Your task to perform on an android device: Open calendar and show me the first week of next month Image 0: 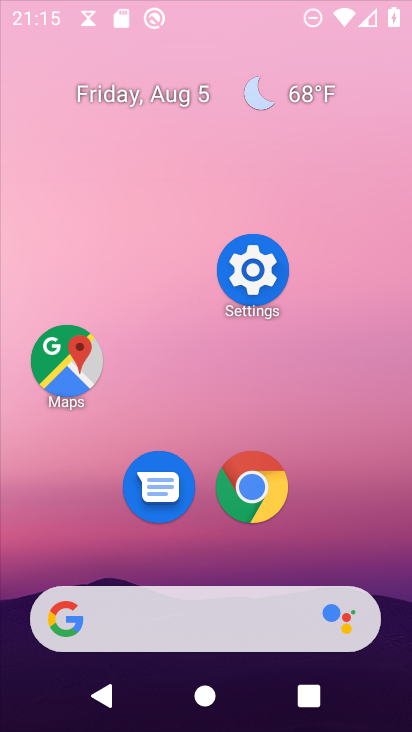
Step 0: press home button
Your task to perform on an android device: Open calendar and show me the first week of next month Image 1: 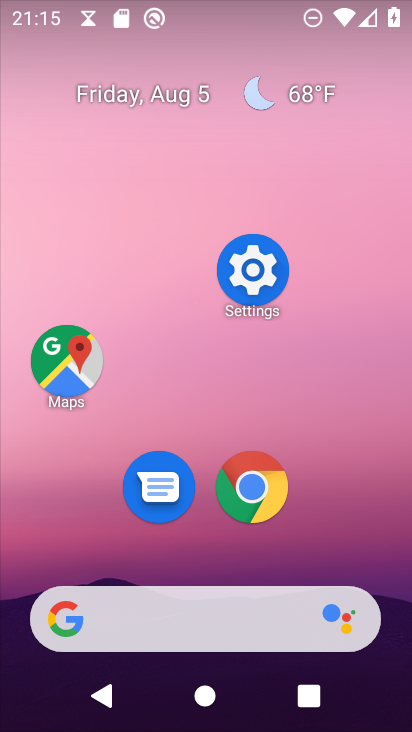
Step 1: drag from (185, 626) to (274, 65)
Your task to perform on an android device: Open calendar and show me the first week of next month Image 2: 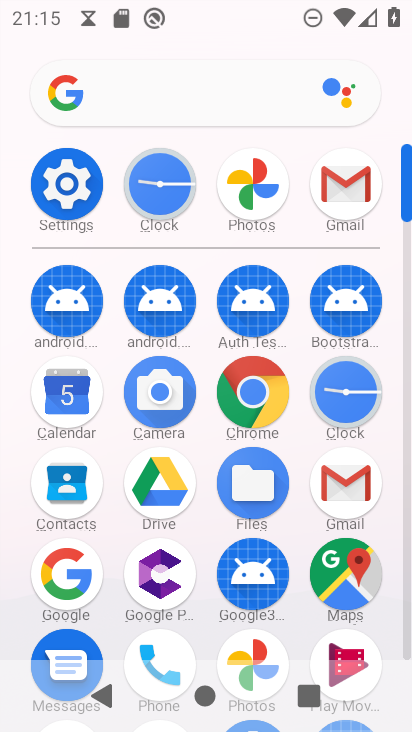
Step 2: click (73, 403)
Your task to perform on an android device: Open calendar and show me the first week of next month Image 3: 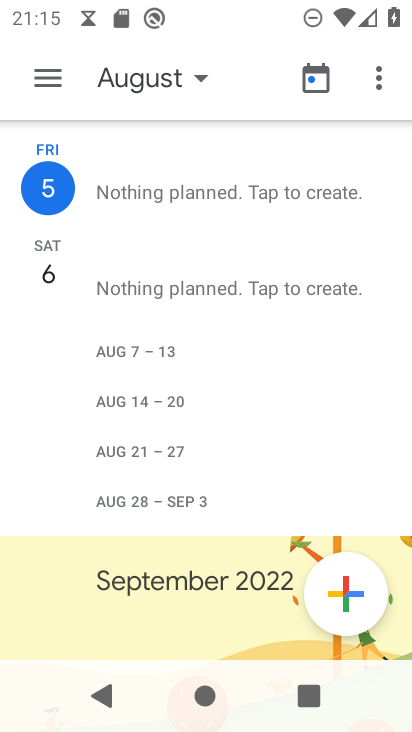
Step 3: click (147, 80)
Your task to perform on an android device: Open calendar and show me the first week of next month Image 4: 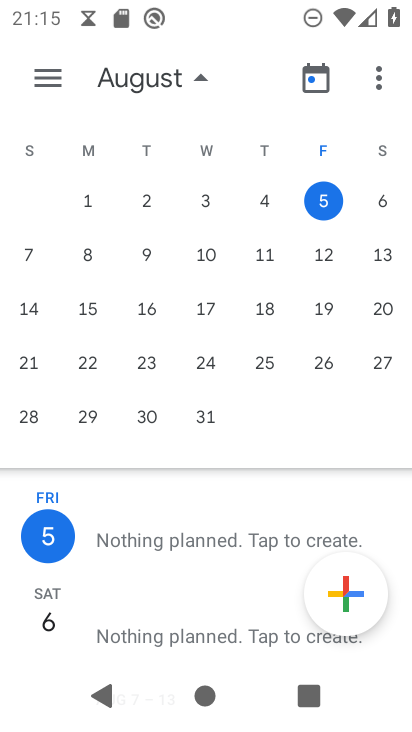
Step 4: drag from (350, 313) to (1, 287)
Your task to perform on an android device: Open calendar and show me the first week of next month Image 5: 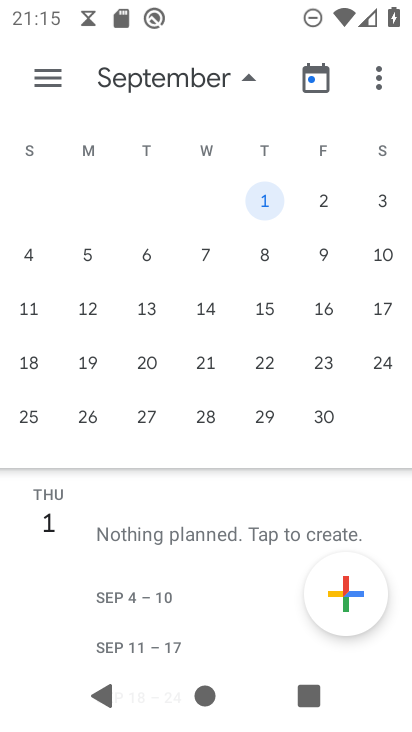
Step 5: click (264, 201)
Your task to perform on an android device: Open calendar and show me the first week of next month Image 6: 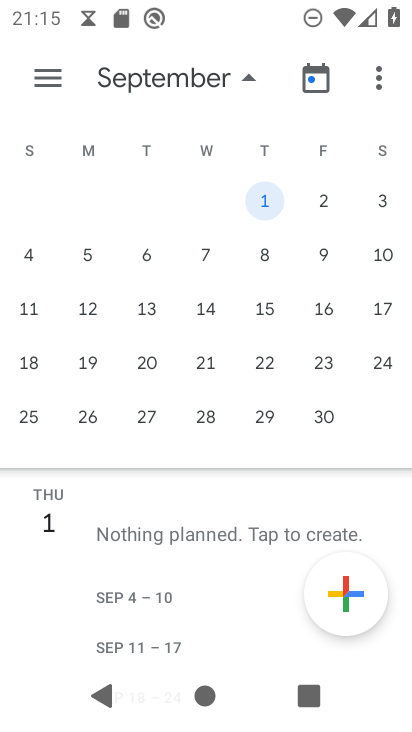
Step 6: click (55, 76)
Your task to perform on an android device: Open calendar and show me the first week of next month Image 7: 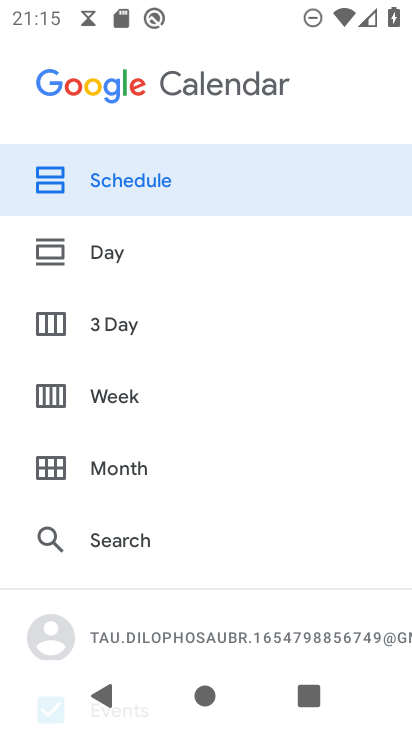
Step 7: click (128, 400)
Your task to perform on an android device: Open calendar and show me the first week of next month Image 8: 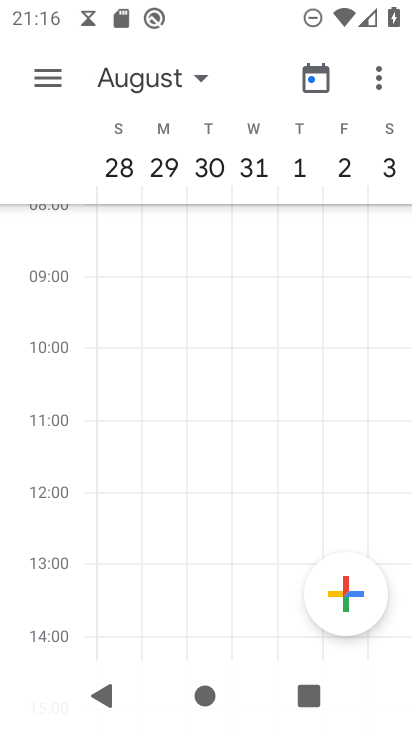
Step 8: task complete